Your task to perform on an android device: turn off location history Image 0: 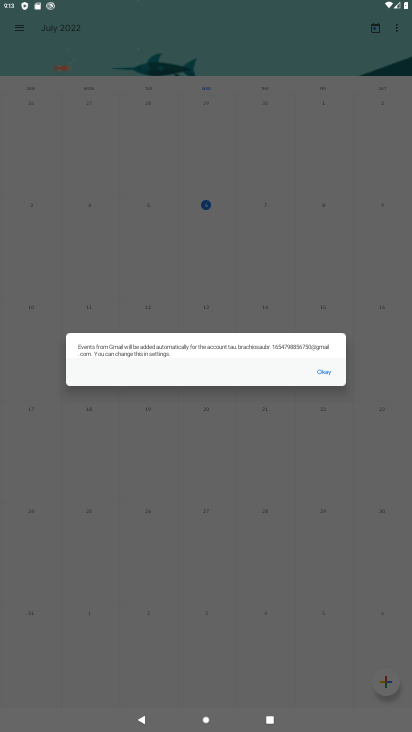
Step 0: press home button
Your task to perform on an android device: turn off location history Image 1: 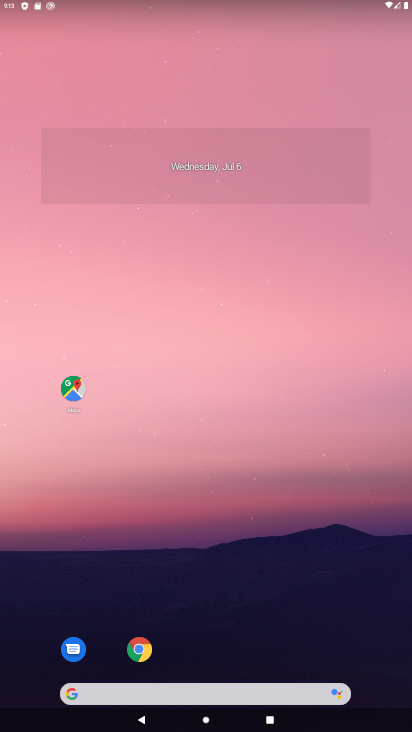
Step 1: drag from (216, 650) to (267, 27)
Your task to perform on an android device: turn off location history Image 2: 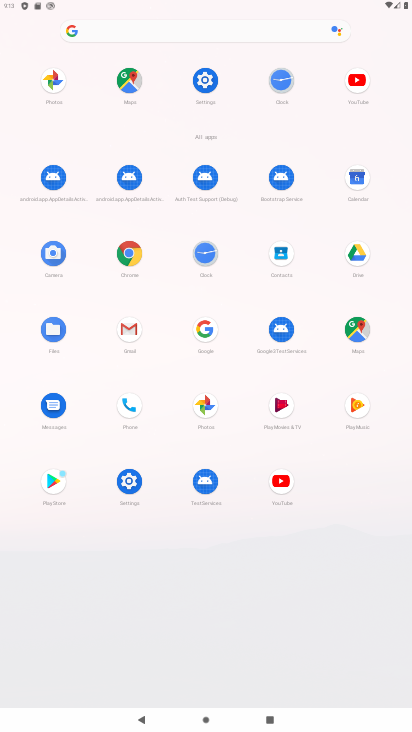
Step 2: click (135, 493)
Your task to perform on an android device: turn off location history Image 3: 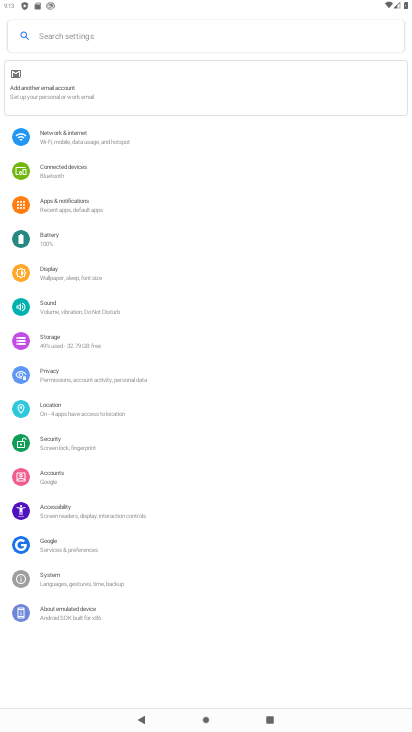
Step 3: click (96, 412)
Your task to perform on an android device: turn off location history Image 4: 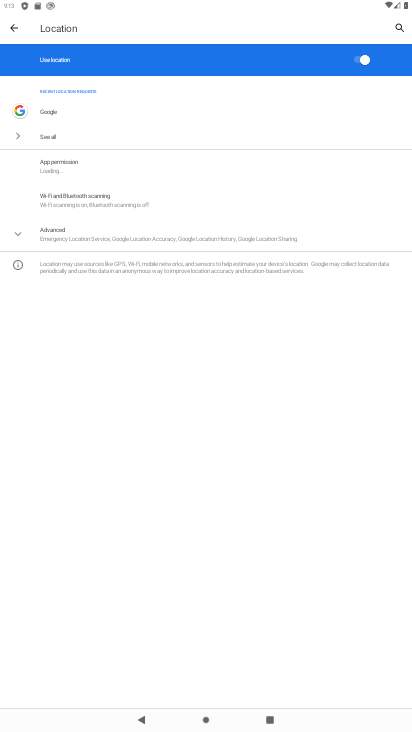
Step 4: click (98, 230)
Your task to perform on an android device: turn off location history Image 5: 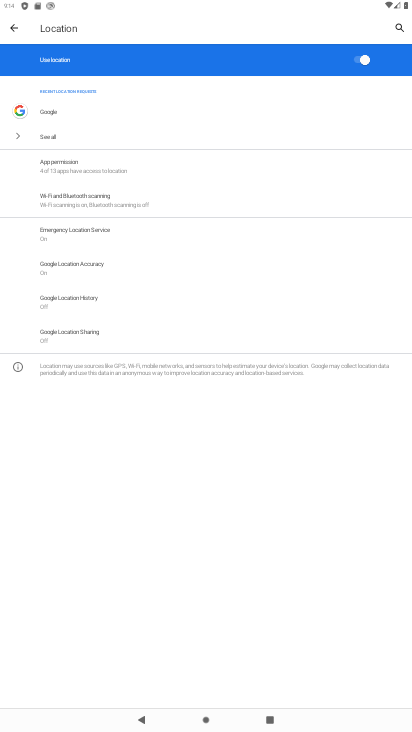
Step 5: click (99, 296)
Your task to perform on an android device: turn off location history Image 6: 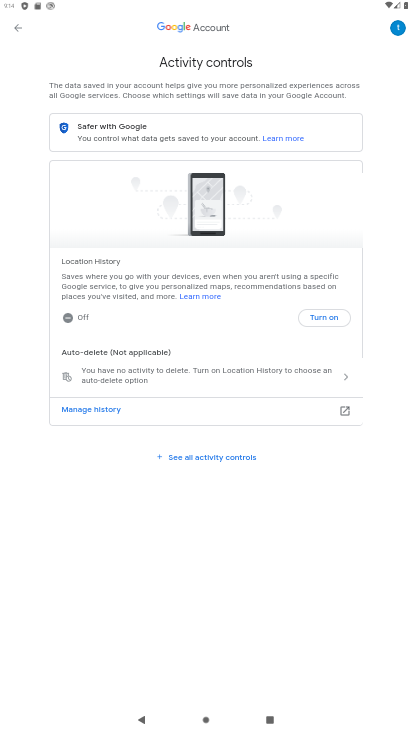
Step 6: task complete